Your task to perform on an android device: toggle notification dots Image 0: 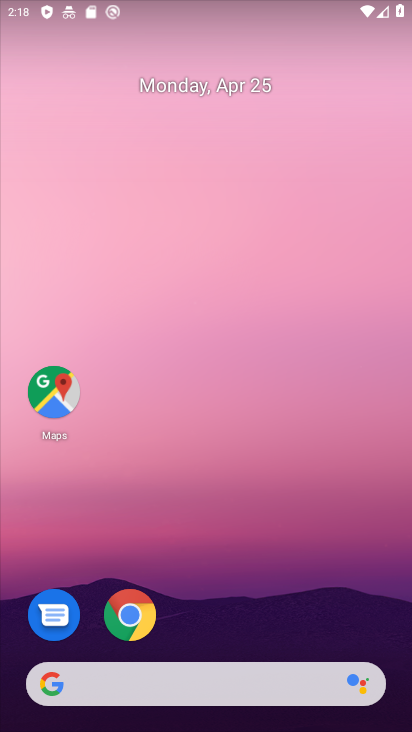
Step 0: drag from (226, 685) to (216, 145)
Your task to perform on an android device: toggle notification dots Image 1: 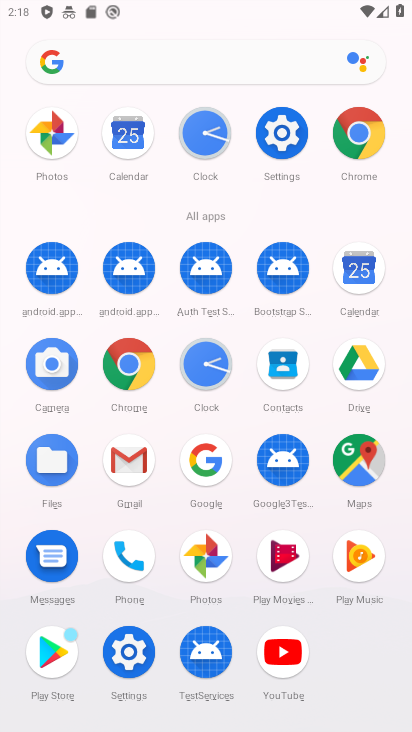
Step 1: click (280, 131)
Your task to perform on an android device: toggle notification dots Image 2: 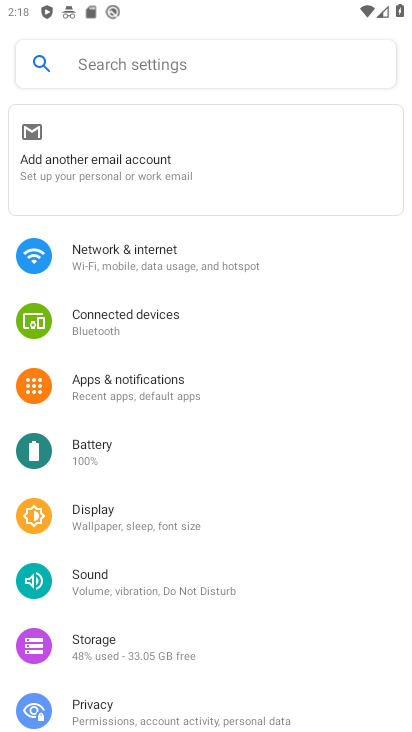
Step 2: click (128, 388)
Your task to perform on an android device: toggle notification dots Image 3: 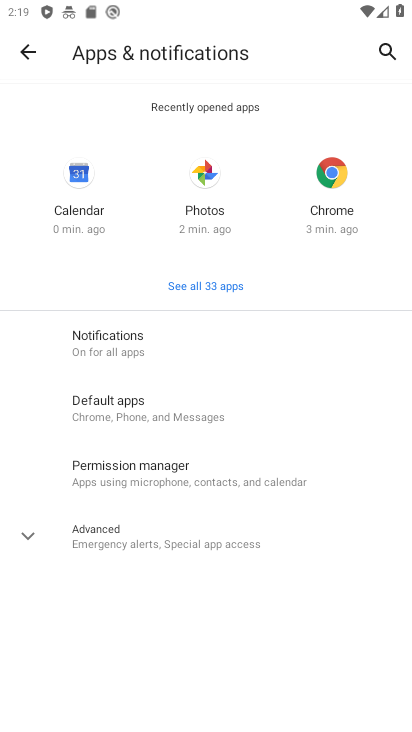
Step 3: click (110, 337)
Your task to perform on an android device: toggle notification dots Image 4: 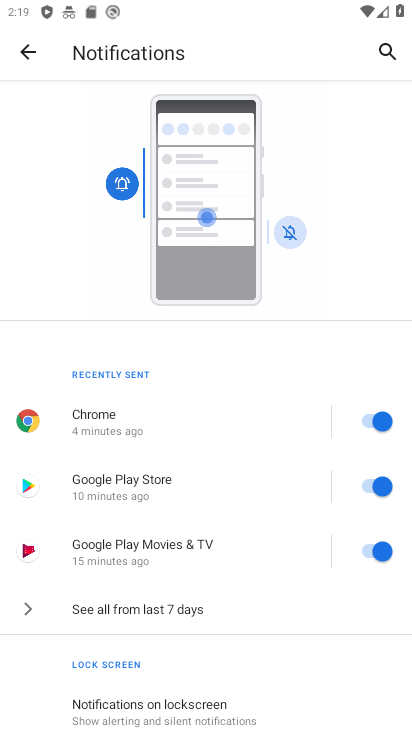
Step 4: drag from (200, 687) to (200, 381)
Your task to perform on an android device: toggle notification dots Image 5: 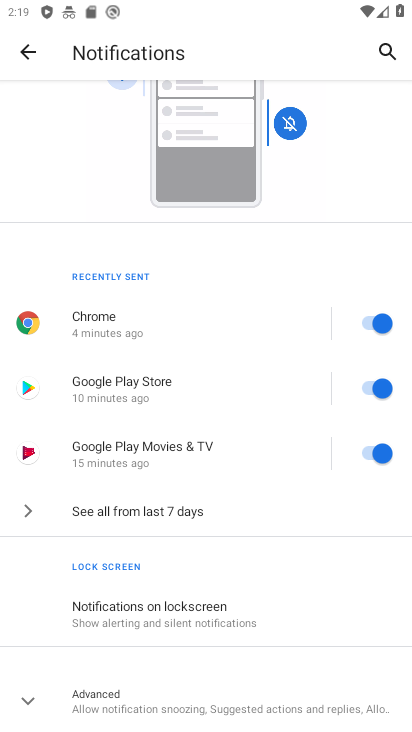
Step 5: click (134, 700)
Your task to perform on an android device: toggle notification dots Image 6: 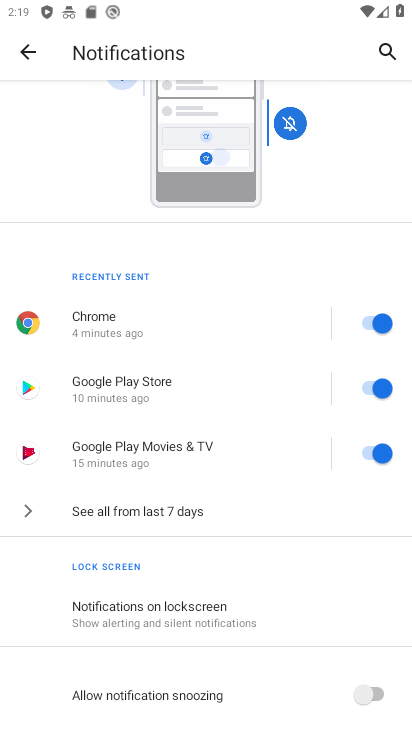
Step 6: drag from (193, 686) to (201, 359)
Your task to perform on an android device: toggle notification dots Image 7: 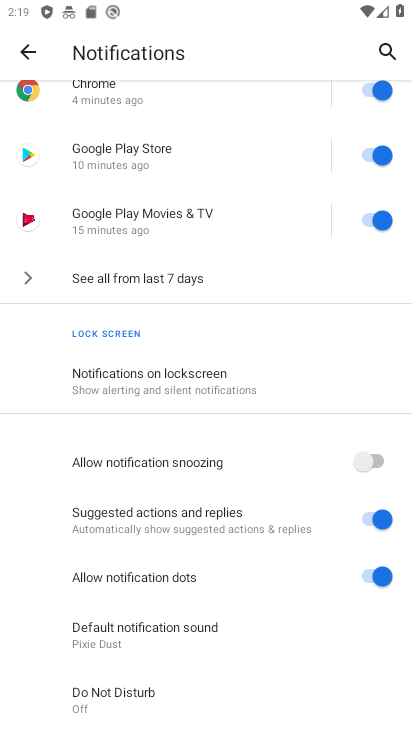
Step 7: click (364, 578)
Your task to perform on an android device: toggle notification dots Image 8: 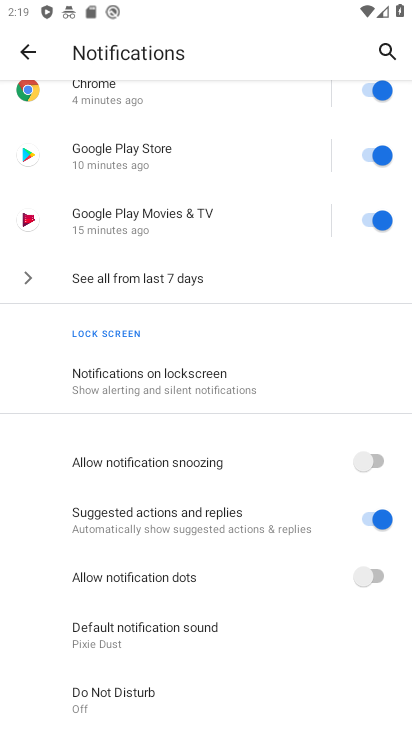
Step 8: task complete